Your task to perform on an android device: Open the calendar and show me this week's events? Image 0: 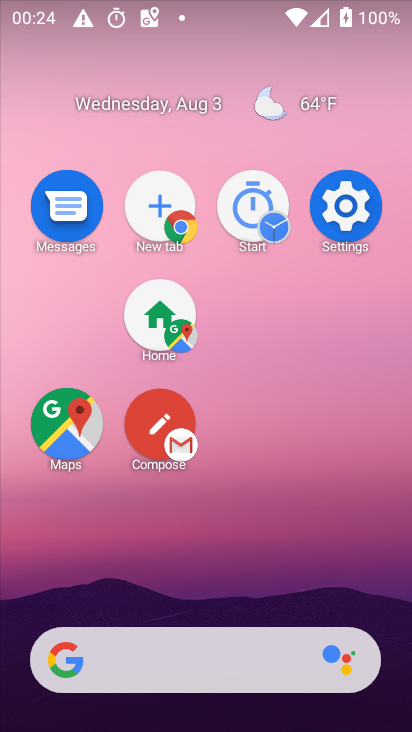
Step 0: drag from (214, 620) to (207, 211)
Your task to perform on an android device: Open the calendar and show me this week's events? Image 1: 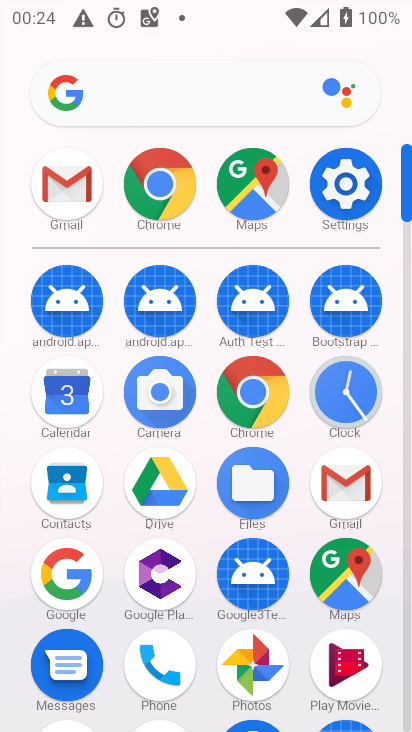
Step 1: drag from (368, 565) to (354, 420)
Your task to perform on an android device: Open the calendar and show me this week's events? Image 2: 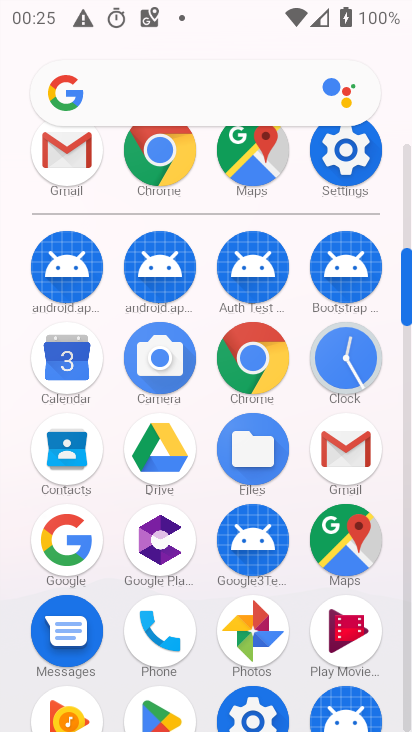
Step 2: click (74, 357)
Your task to perform on an android device: Open the calendar and show me this week's events? Image 3: 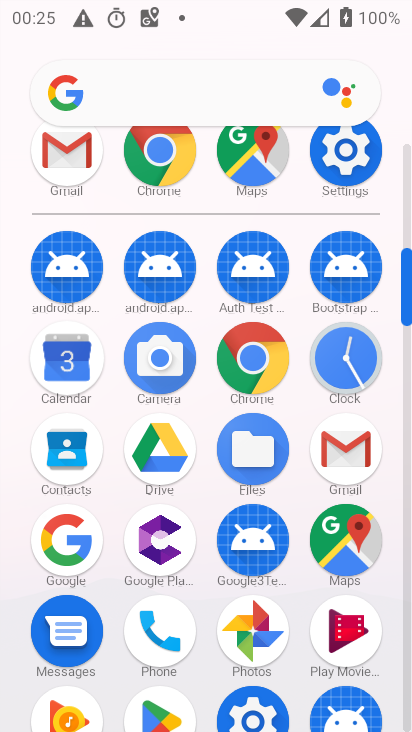
Step 3: click (72, 356)
Your task to perform on an android device: Open the calendar and show me this week's events? Image 4: 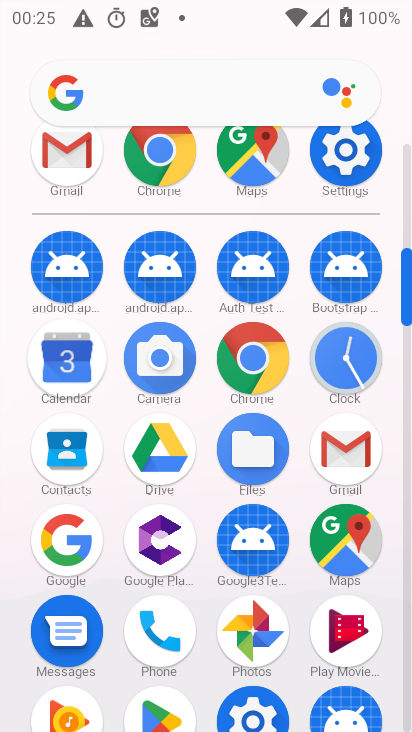
Step 4: click (72, 356)
Your task to perform on an android device: Open the calendar and show me this week's events? Image 5: 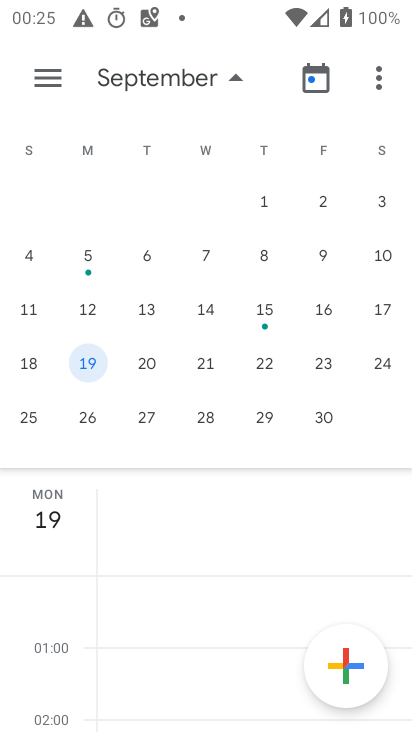
Step 5: task complete